Your task to perform on an android device: empty trash in the gmail app Image 0: 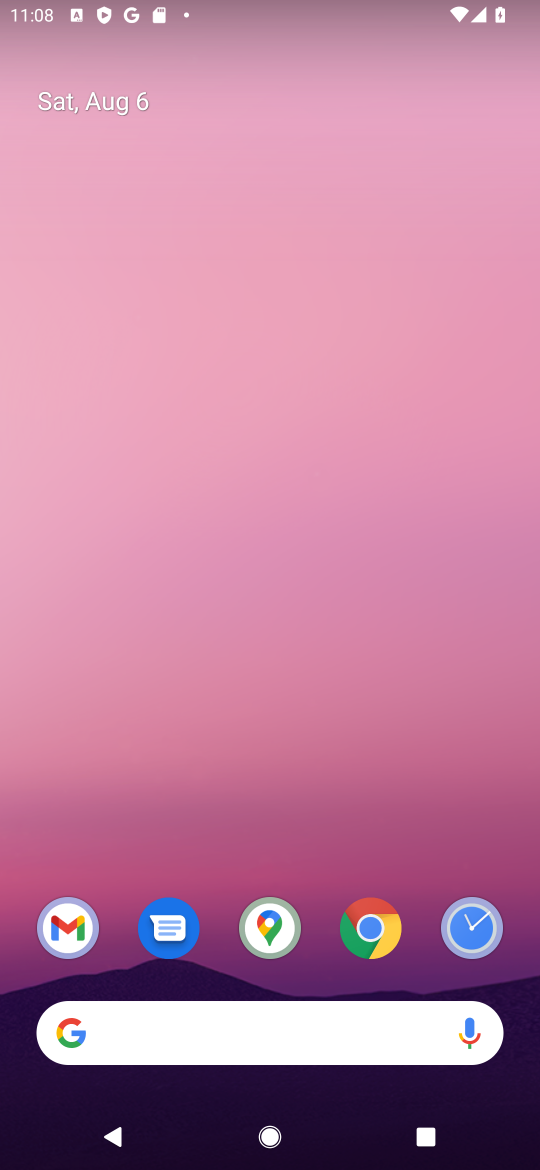
Step 0: click (65, 941)
Your task to perform on an android device: empty trash in the gmail app Image 1: 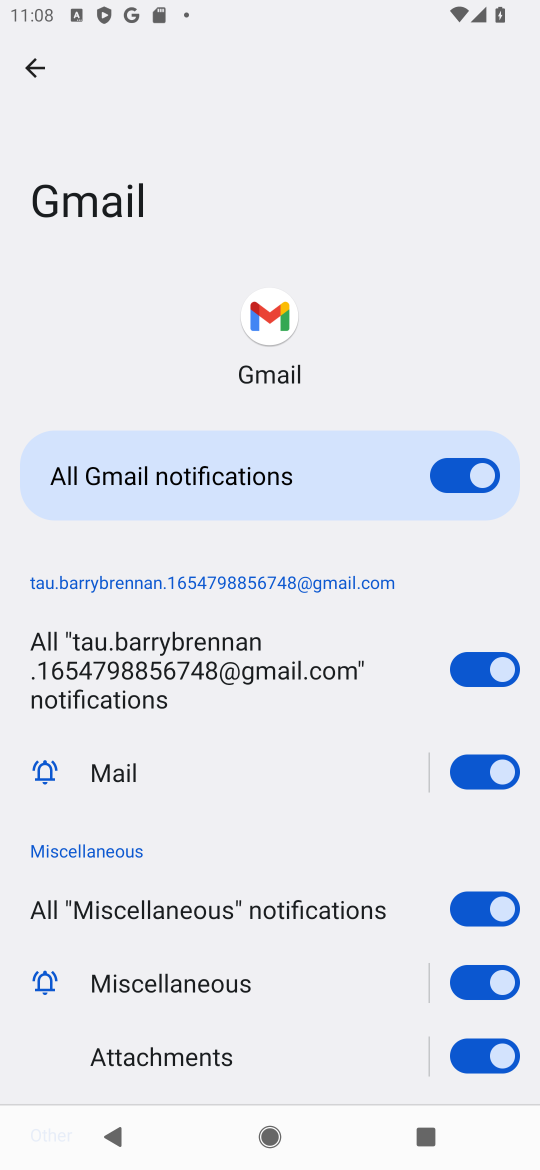
Step 1: click (34, 65)
Your task to perform on an android device: empty trash in the gmail app Image 2: 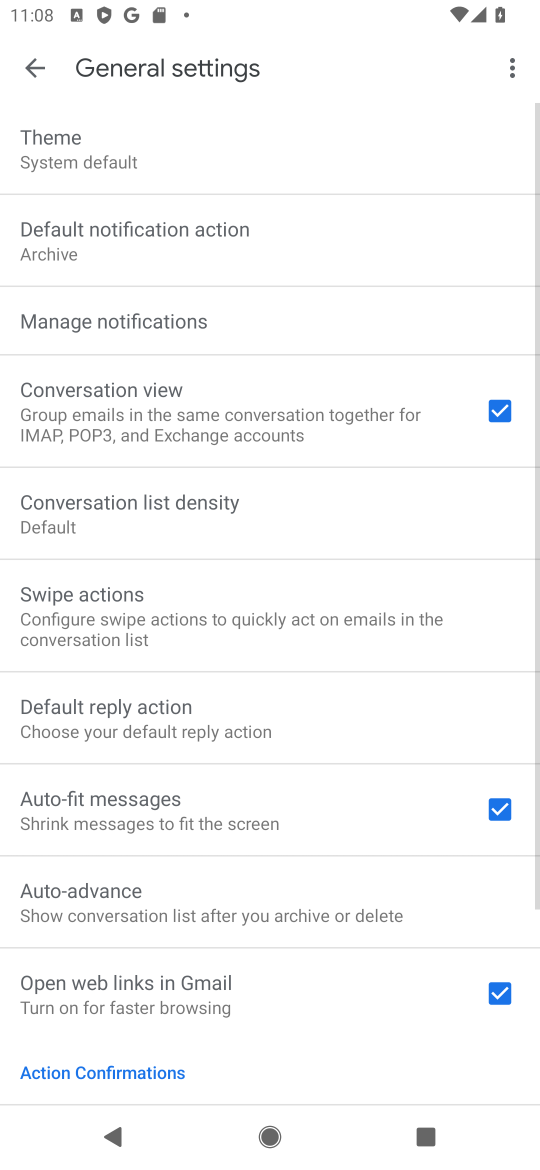
Step 2: click (34, 65)
Your task to perform on an android device: empty trash in the gmail app Image 3: 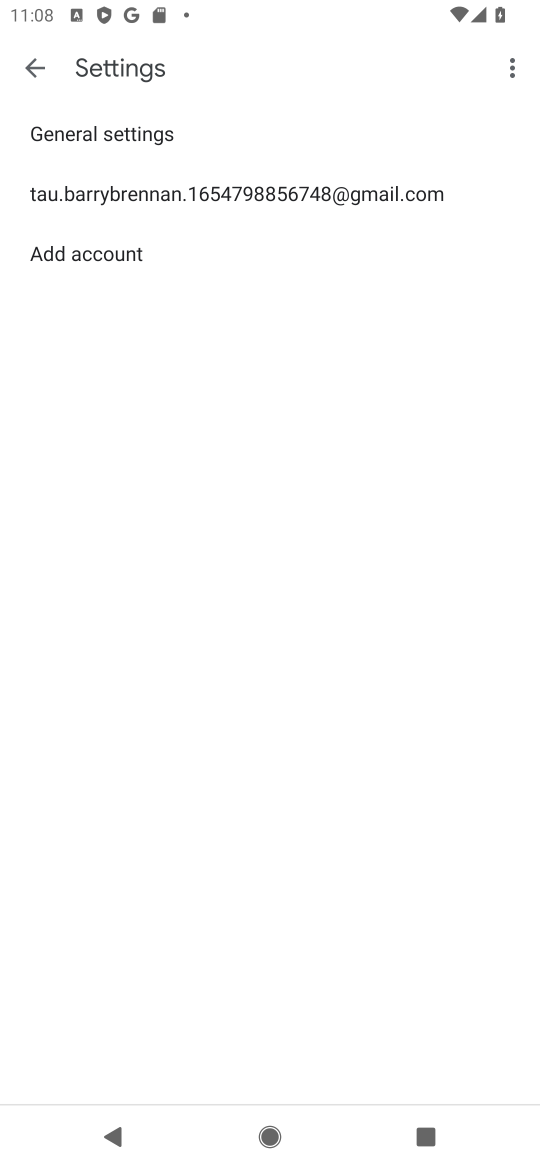
Step 3: click (34, 65)
Your task to perform on an android device: empty trash in the gmail app Image 4: 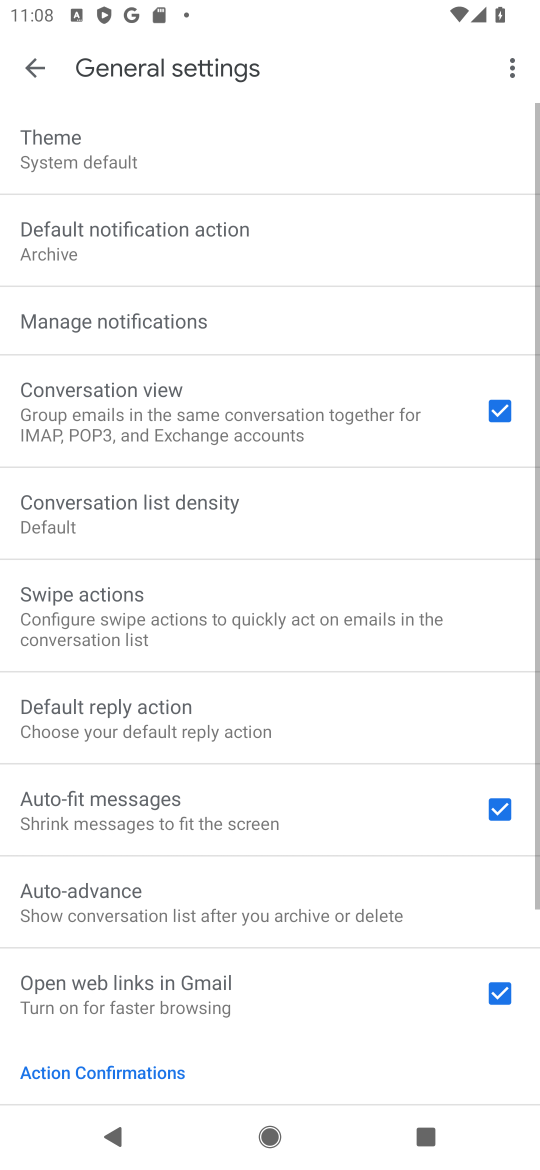
Step 4: click (34, 65)
Your task to perform on an android device: empty trash in the gmail app Image 5: 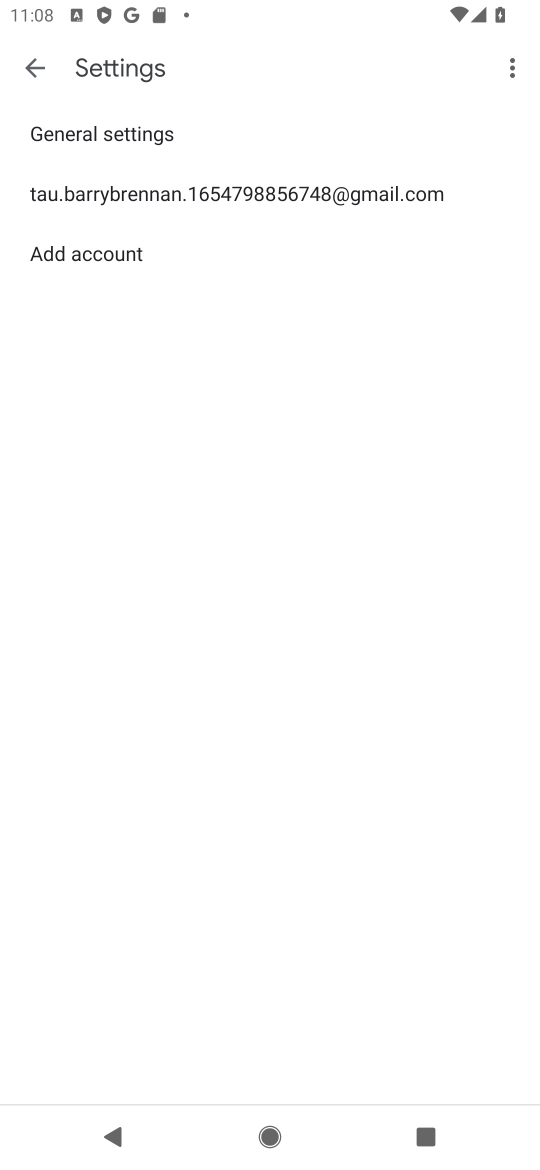
Step 5: click (34, 65)
Your task to perform on an android device: empty trash in the gmail app Image 6: 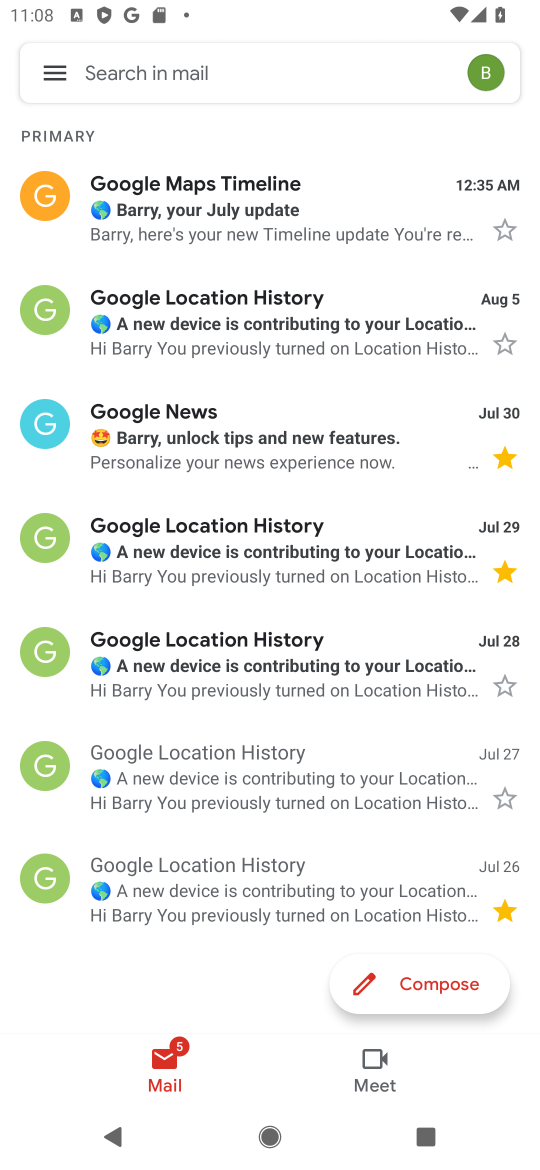
Step 6: click (52, 75)
Your task to perform on an android device: empty trash in the gmail app Image 7: 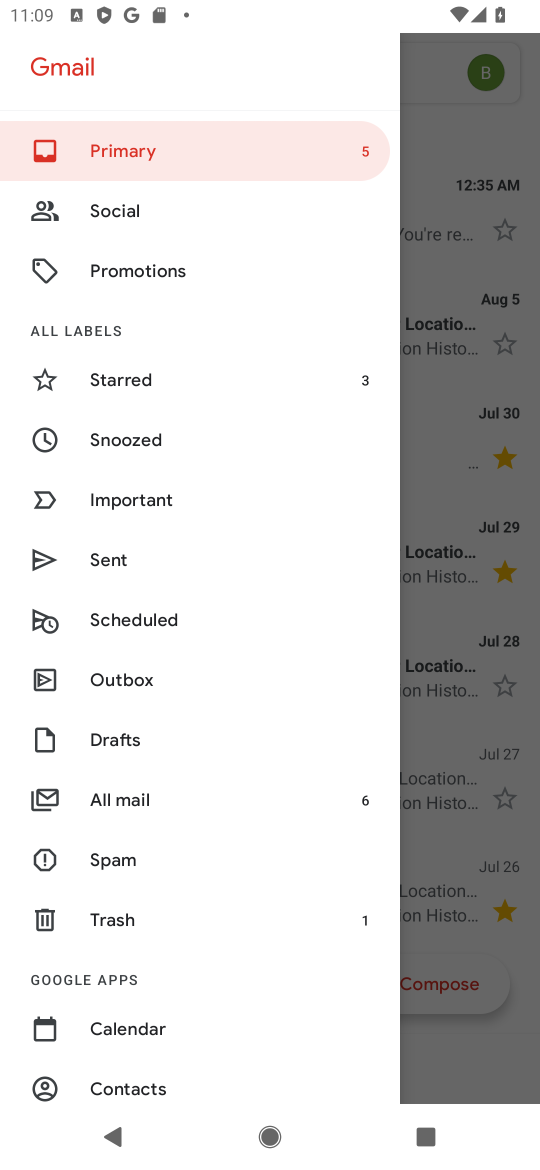
Step 7: click (102, 915)
Your task to perform on an android device: empty trash in the gmail app Image 8: 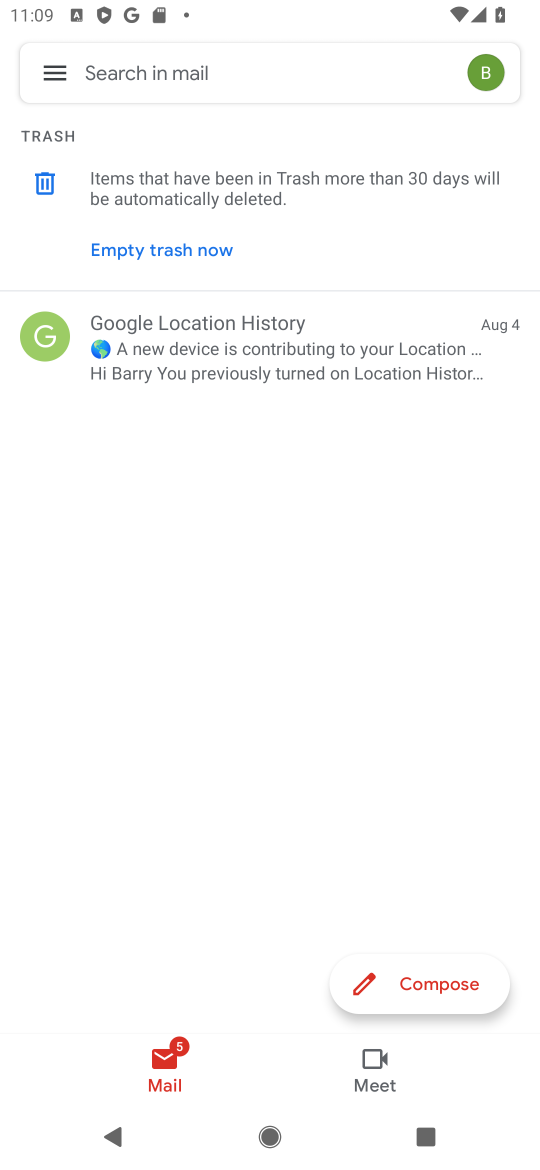
Step 8: click (212, 257)
Your task to perform on an android device: empty trash in the gmail app Image 9: 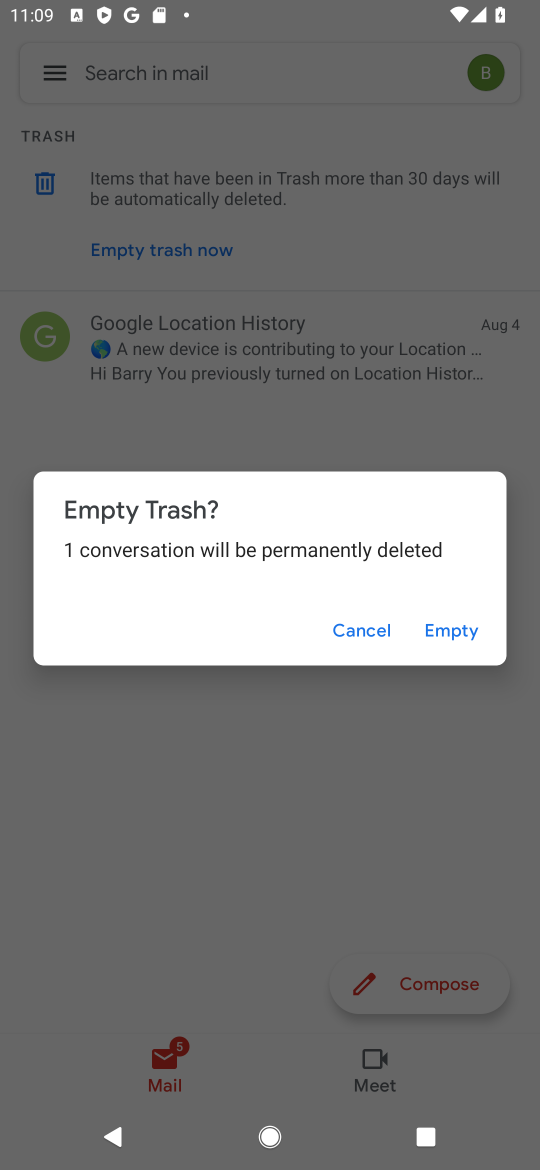
Step 9: click (444, 626)
Your task to perform on an android device: empty trash in the gmail app Image 10: 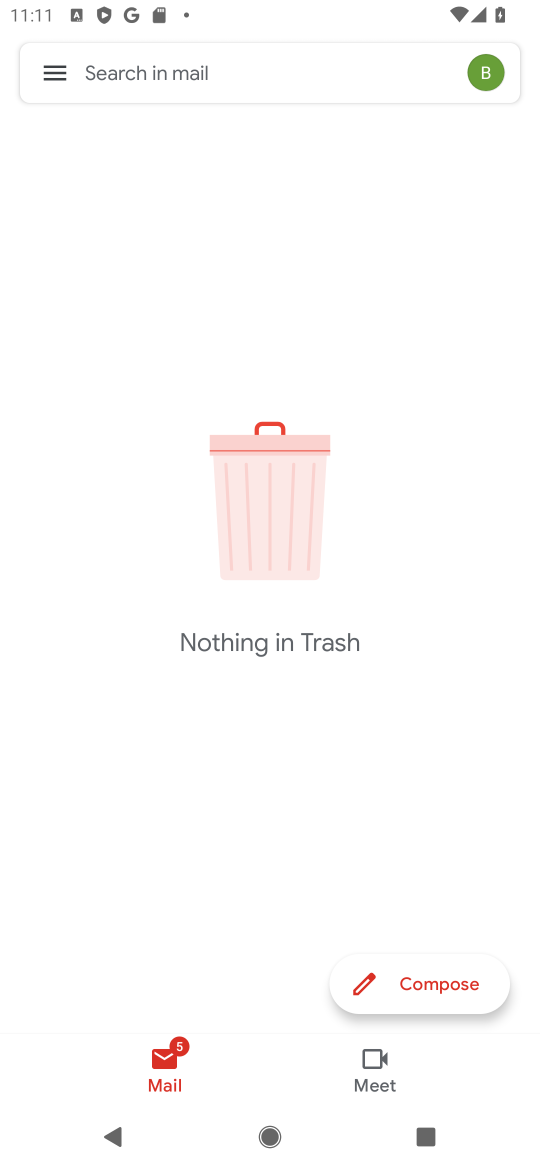
Step 10: task complete